Your task to perform on an android device: What is the recent news? Image 0: 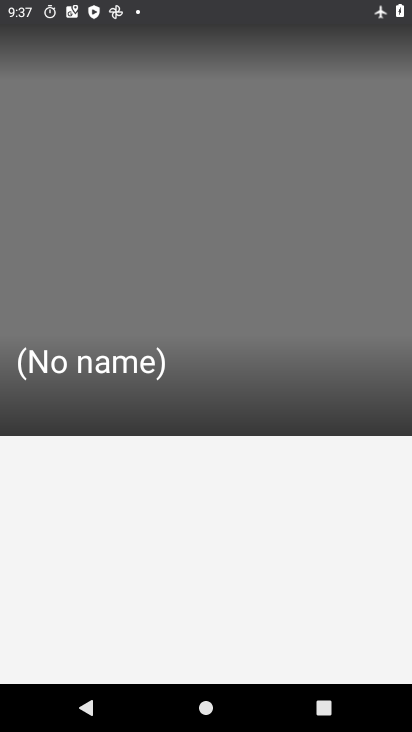
Step 0: drag from (209, 616) to (241, 540)
Your task to perform on an android device: What is the recent news? Image 1: 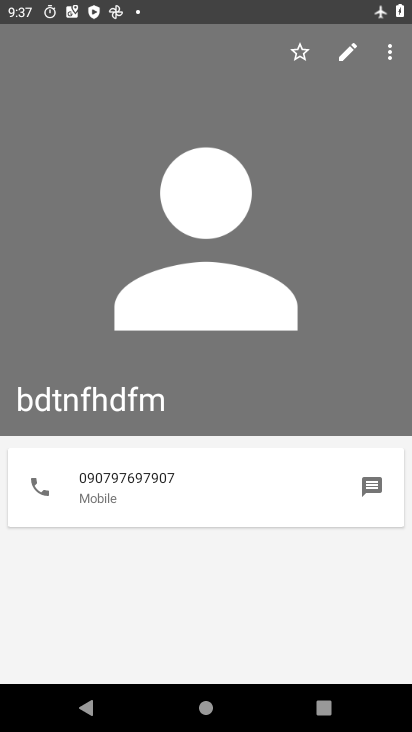
Step 1: press home button
Your task to perform on an android device: What is the recent news? Image 2: 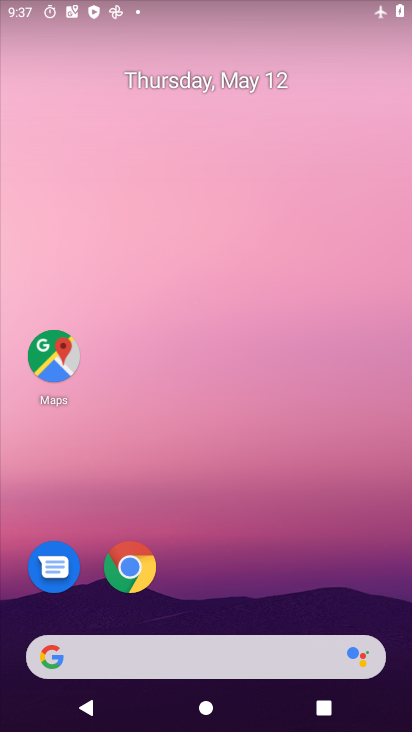
Step 2: drag from (238, 630) to (301, 120)
Your task to perform on an android device: What is the recent news? Image 3: 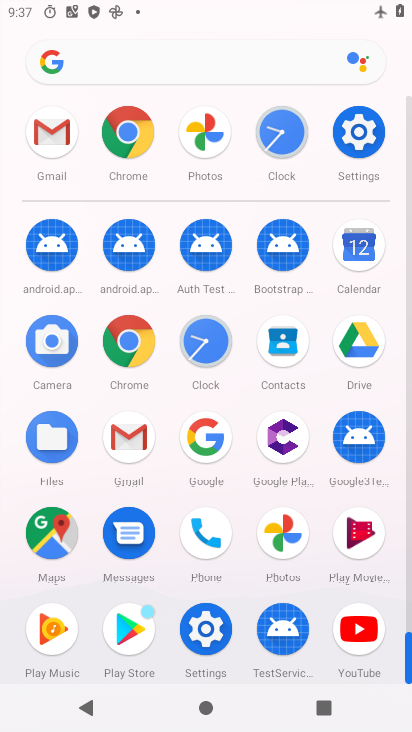
Step 3: click (222, 442)
Your task to perform on an android device: What is the recent news? Image 4: 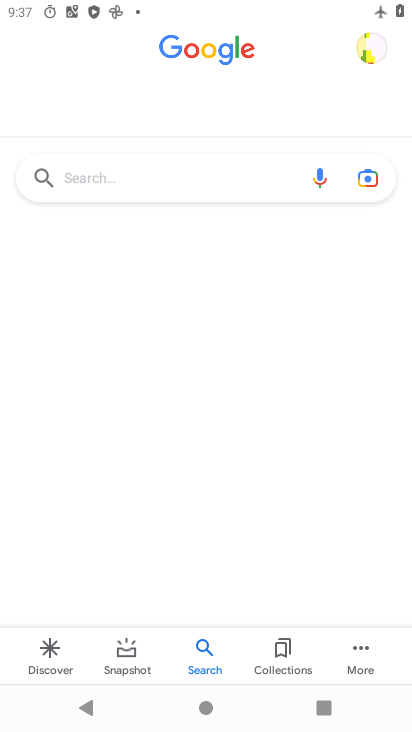
Step 4: click (184, 177)
Your task to perform on an android device: What is the recent news? Image 5: 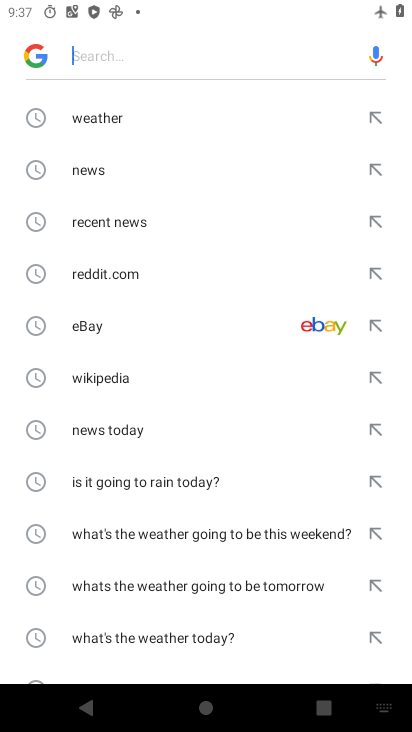
Step 5: click (212, 166)
Your task to perform on an android device: What is the recent news? Image 6: 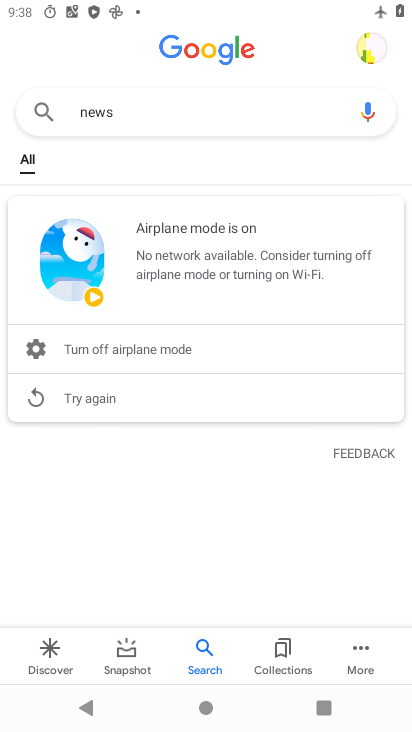
Step 6: task complete